Your task to perform on an android device: Find coffee shops on Maps Image 0: 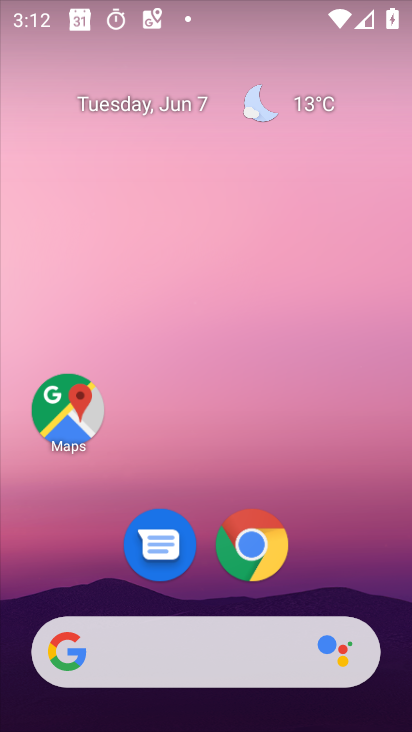
Step 0: click (81, 423)
Your task to perform on an android device: Find coffee shops on Maps Image 1: 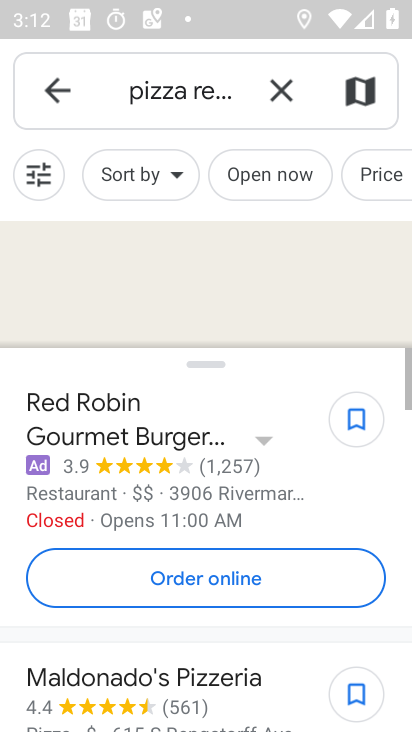
Step 1: click (279, 88)
Your task to perform on an android device: Find coffee shops on Maps Image 2: 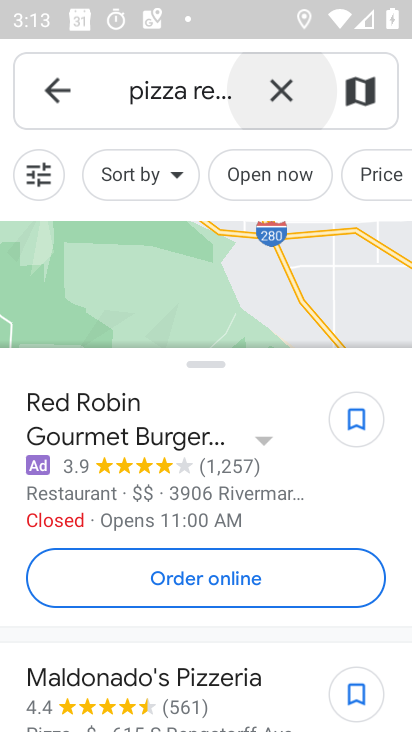
Step 2: click (171, 87)
Your task to perform on an android device: Find coffee shops on Maps Image 3: 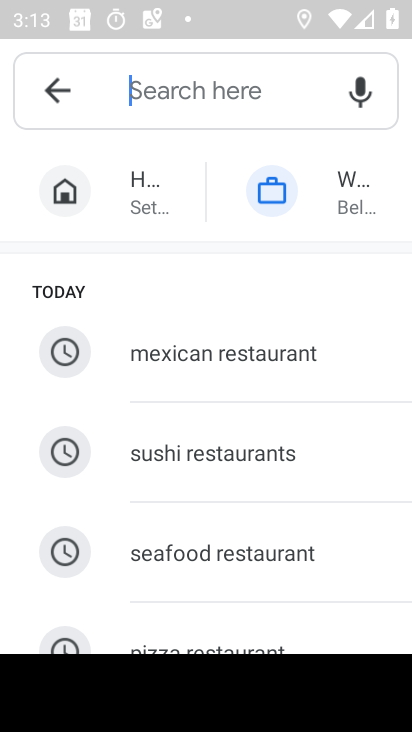
Step 3: type "coffee shops"
Your task to perform on an android device: Find coffee shops on Maps Image 4: 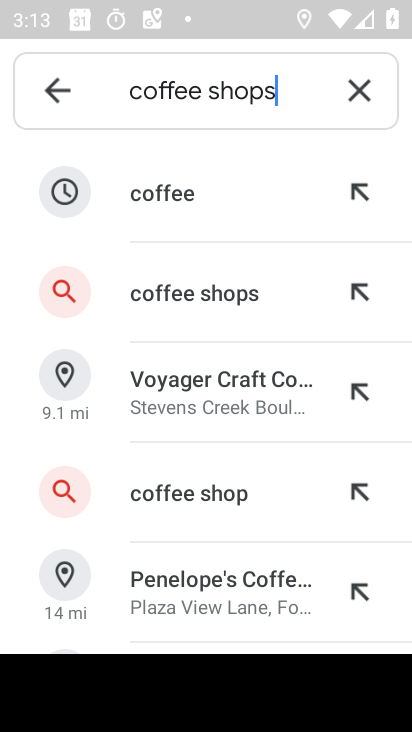
Step 4: click (233, 293)
Your task to perform on an android device: Find coffee shops on Maps Image 5: 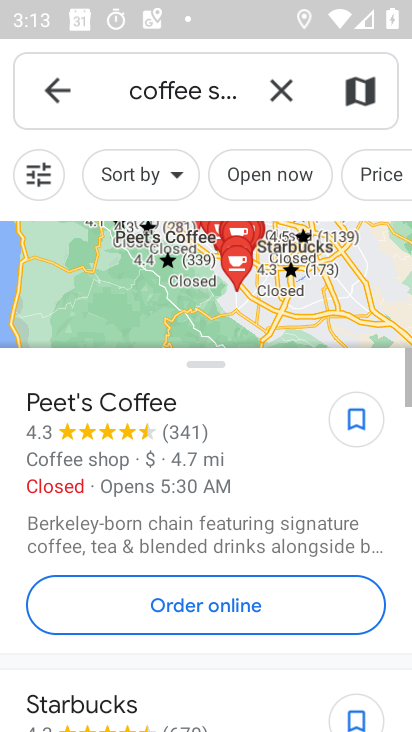
Step 5: task complete